Your task to perform on an android device: Open Google Chrome and click the shortcut for Amazon.com Image 0: 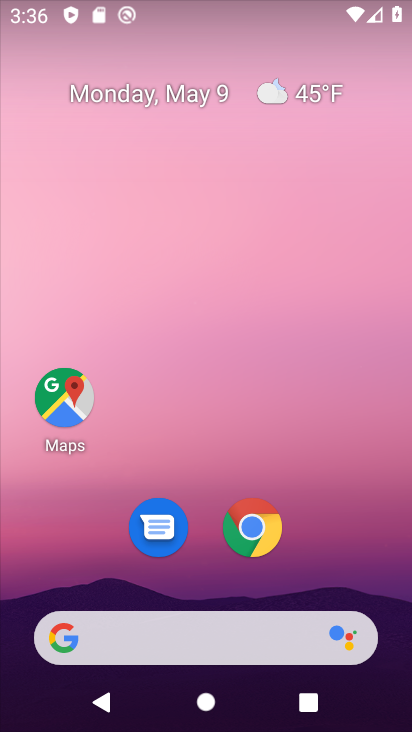
Step 0: drag from (402, 606) to (286, 262)
Your task to perform on an android device: Open Google Chrome and click the shortcut for Amazon.com Image 1: 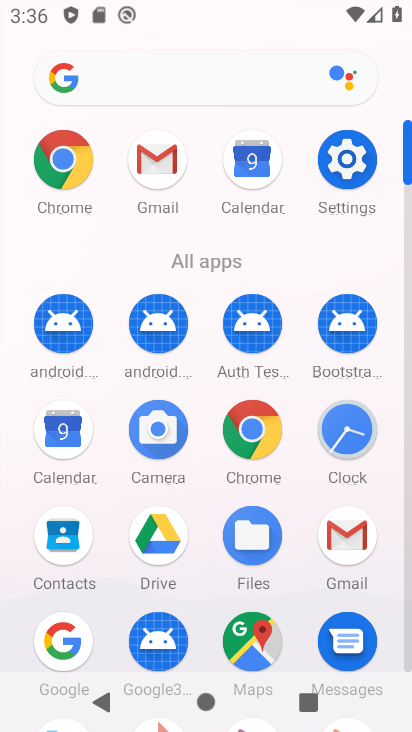
Step 1: click (57, 175)
Your task to perform on an android device: Open Google Chrome and click the shortcut for Amazon.com Image 2: 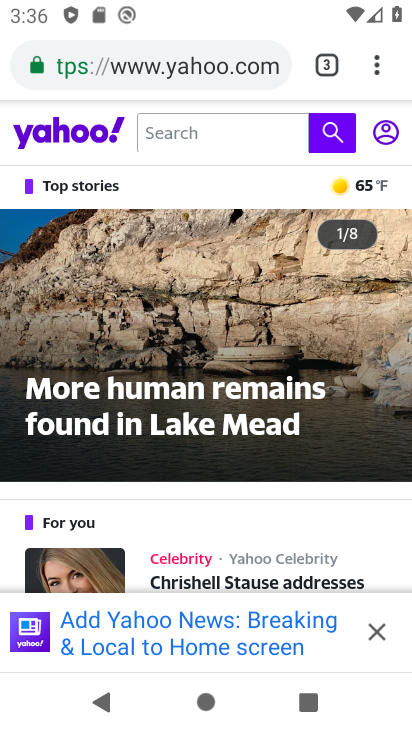
Step 2: click (334, 70)
Your task to perform on an android device: Open Google Chrome and click the shortcut for Amazon.com Image 3: 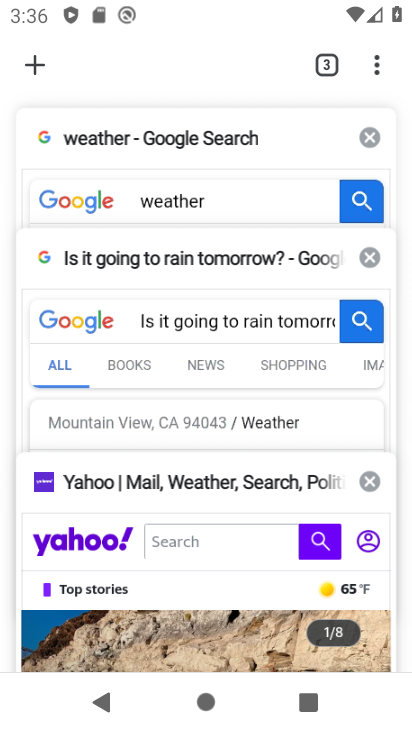
Step 3: click (38, 62)
Your task to perform on an android device: Open Google Chrome and click the shortcut for Amazon.com Image 4: 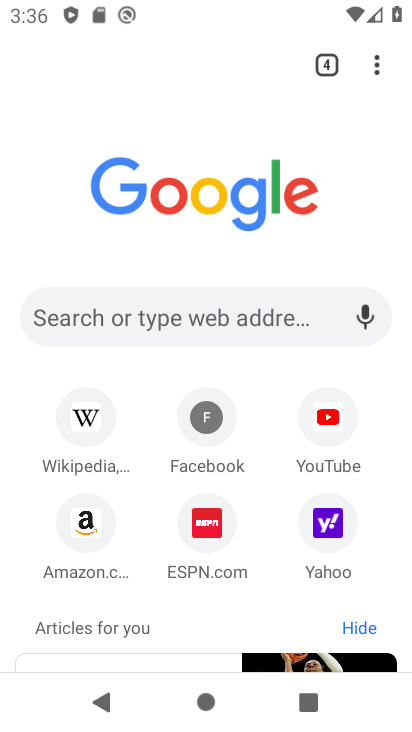
Step 4: click (79, 549)
Your task to perform on an android device: Open Google Chrome and click the shortcut for Amazon.com Image 5: 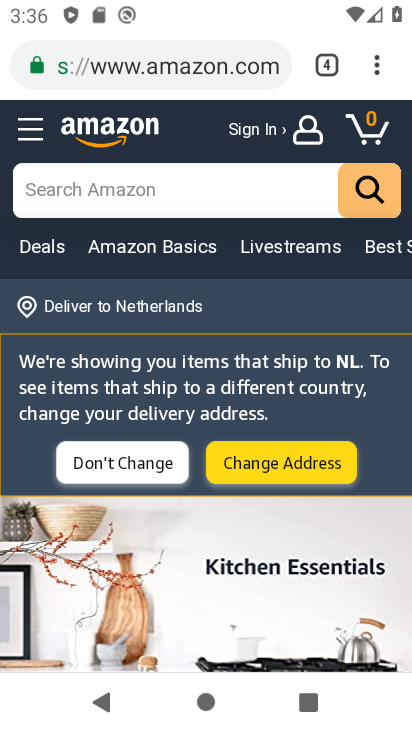
Step 5: task complete